Your task to perform on an android device: turn off sleep mode Image 0: 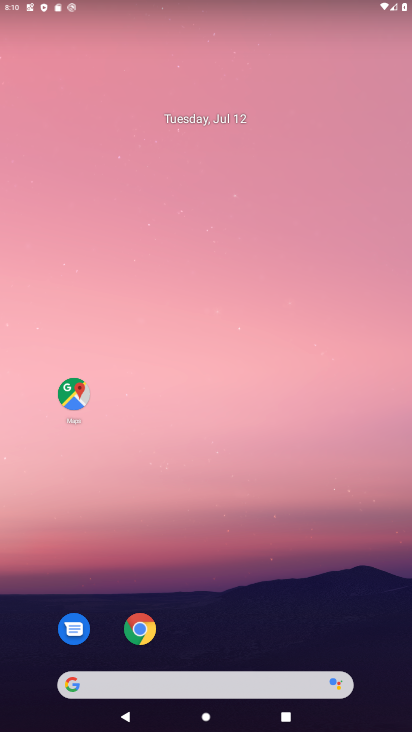
Step 0: drag from (304, 674) to (291, 391)
Your task to perform on an android device: turn off sleep mode Image 1: 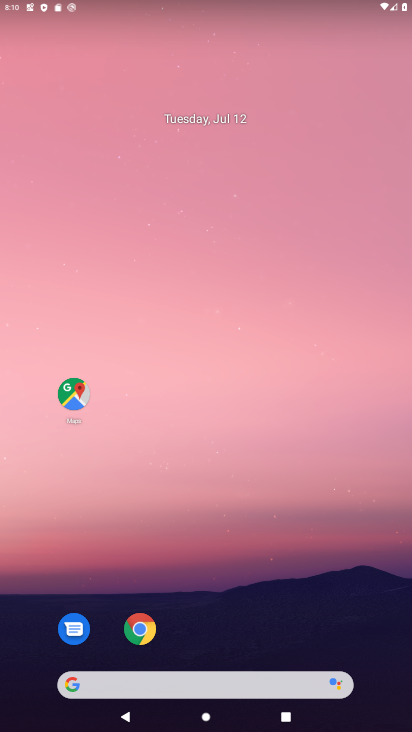
Step 1: drag from (209, 689) to (212, 553)
Your task to perform on an android device: turn off sleep mode Image 2: 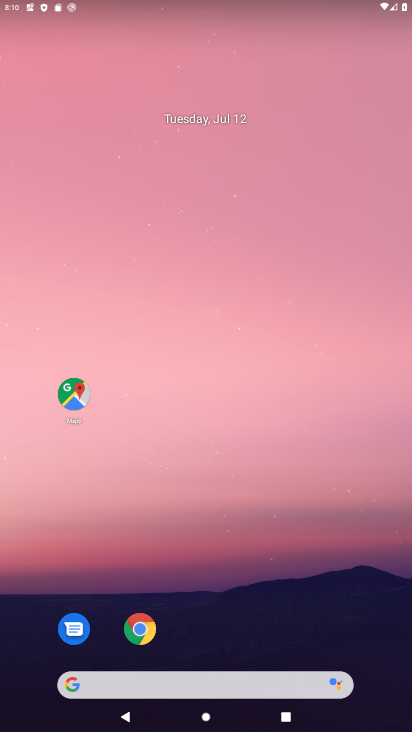
Step 2: drag from (215, 655) to (213, 243)
Your task to perform on an android device: turn off sleep mode Image 3: 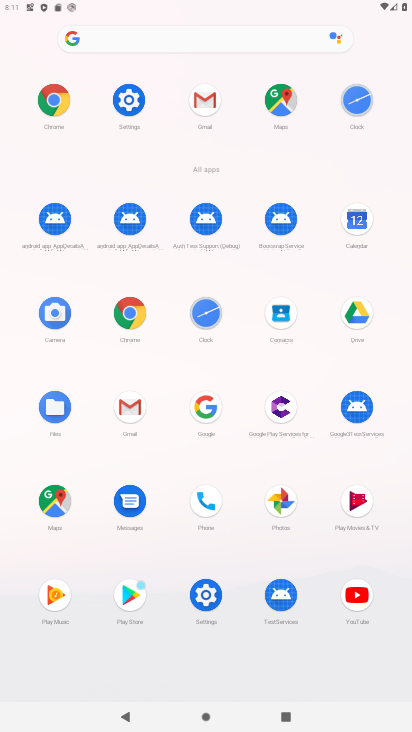
Step 3: click (128, 95)
Your task to perform on an android device: turn off sleep mode Image 4: 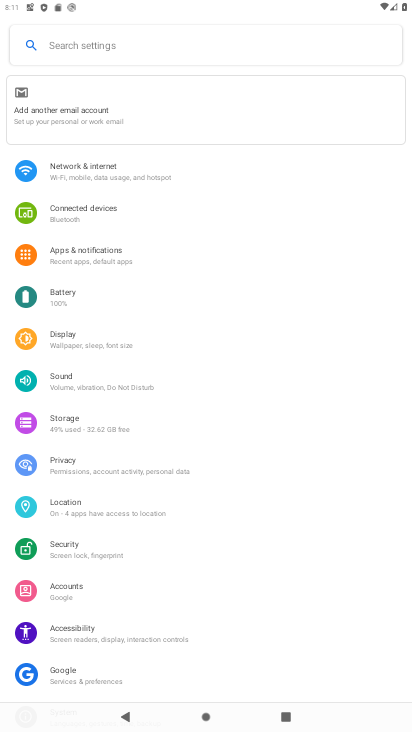
Step 4: task complete